Your task to perform on an android device: Go to location settings Image 0: 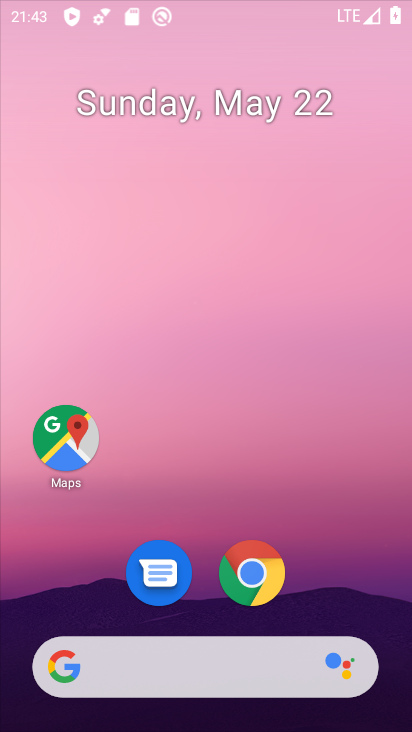
Step 0: press home button
Your task to perform on an android device: Go to location settings Image 1: 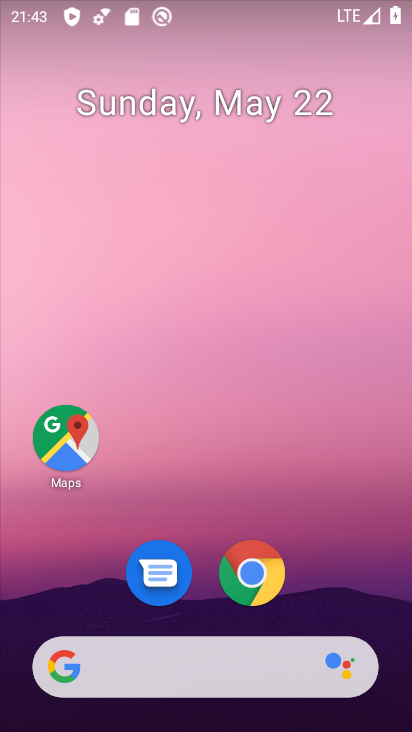
Step 1: drag from (353, 592) to (314, 141)
Your task to perform on an android device: Go to location settings Image 2: 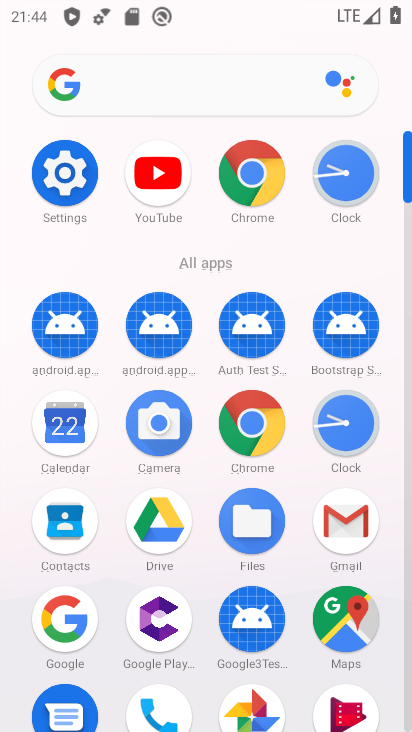
Step 2: click (74, 164)
Your task to perform on an android device: Go to location settings Image 3: 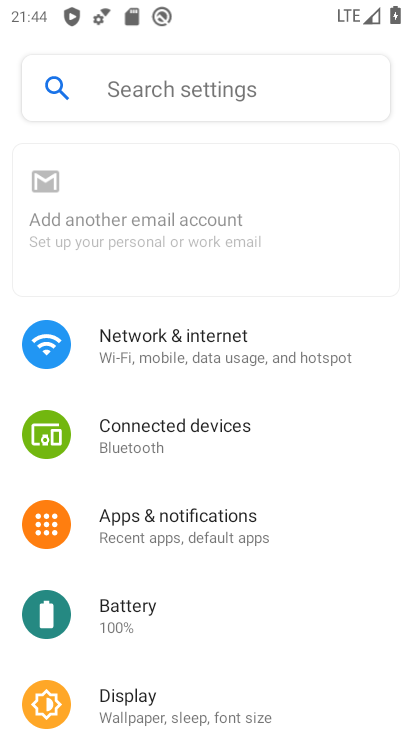
Step 3: drag from (244, 589) to (224, 0)
Your task to perform on an android device: Go to location settings Image 4: 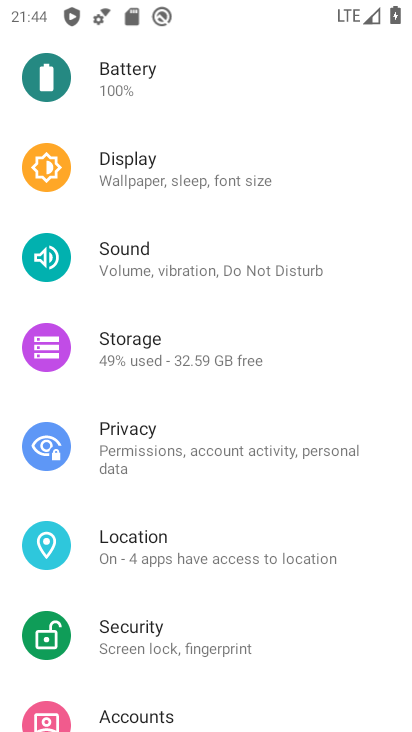
Step 4: click (213, 560)
Your task to perform on an android device: Go to location settings Image 5: 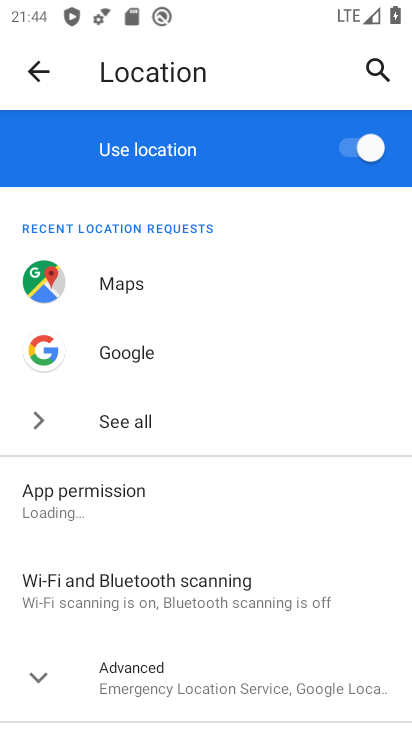
Step 5: task complete